Your task to perform on an android device: turn off sleep mode Image 0: 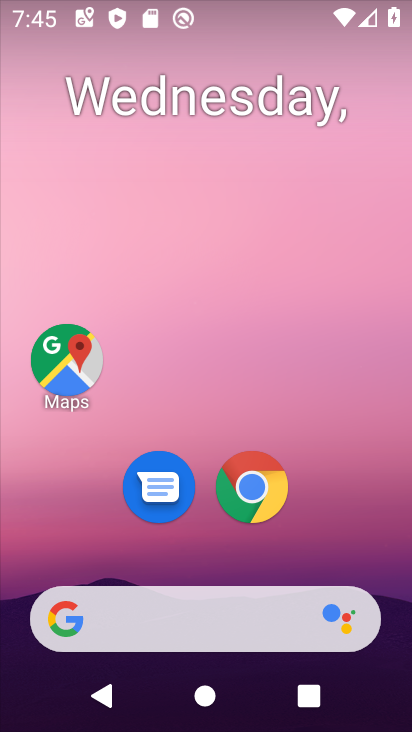
Step 0: drag from (389, 558) to (366, 175)
Your task to perform on an android device: turn off sleep mode Image 1: 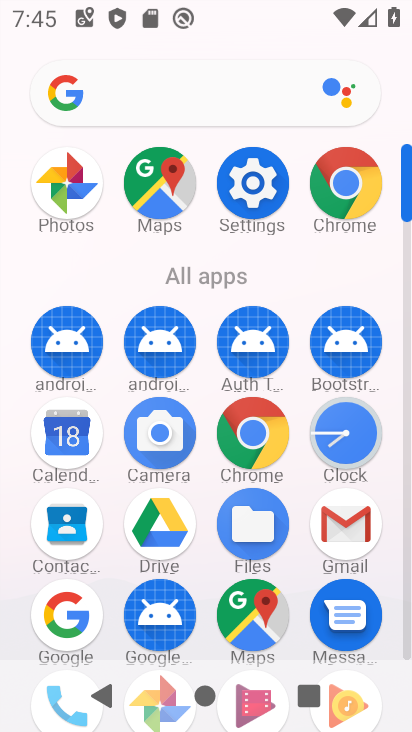
Step 1: click (252, 211)
Your task to perform on an android device: turn off sleep mode Image 2: 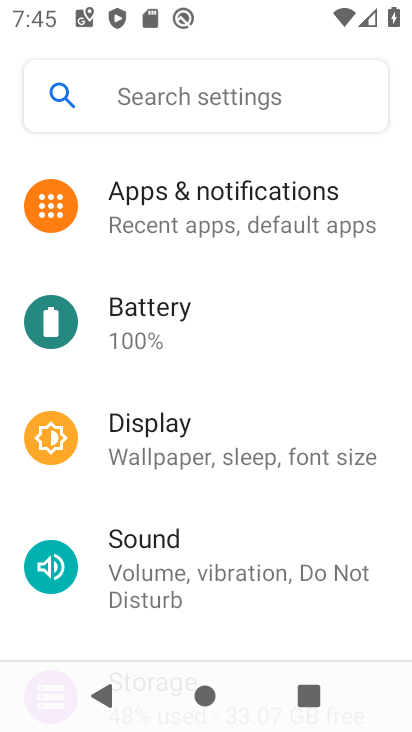
Step 2: drag from (374, 353) to (366, 457)
Your task to perform on an android device: turn off sleep mode Image 3: 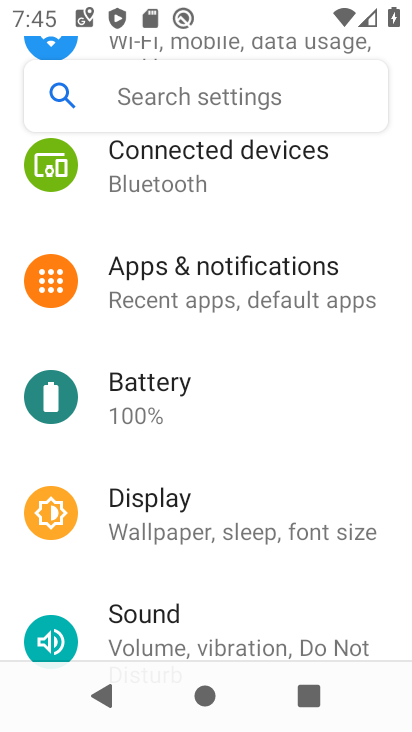
Step 3: drag from (368, 343) to (365, 437)
Your task to perform on an android device: turn off sleep mode Image 4: 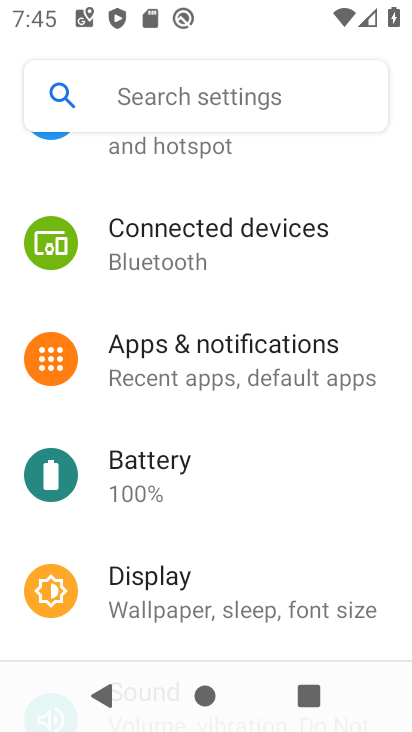
Step 4: drag from (363, 300) to (372, 426)
Your task to perform on an android device: turn off sleep mode Image 5: 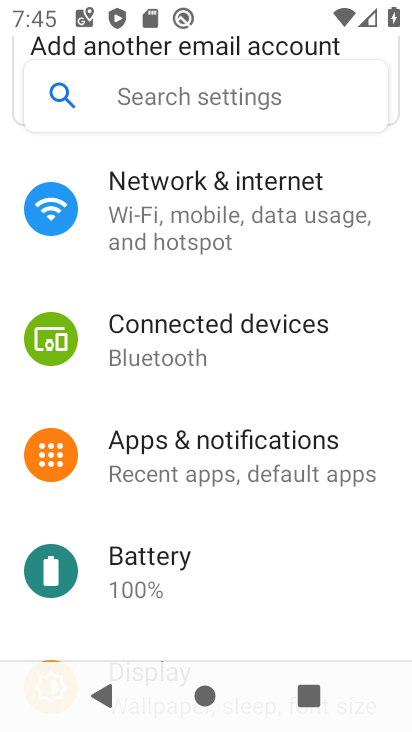
Step 5: drag from (366, 310) to (377, 434)
Your task to perform on an android device: turn off sleep mode Image 6: 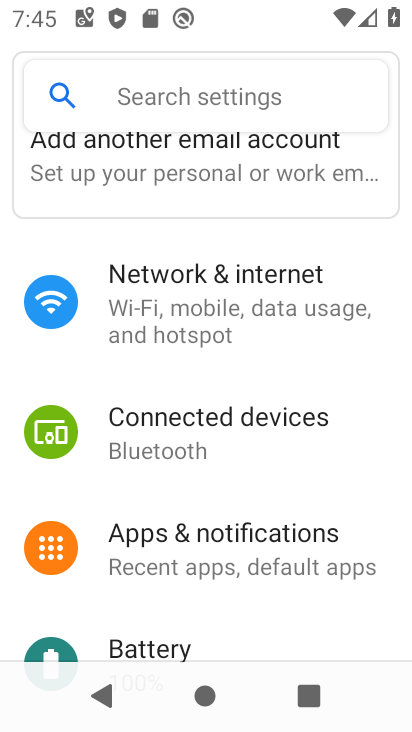
Step 6: drag from (383, 278) to (382, 435)
Your task to perform on an android device: turn off sleep mode Image 7: 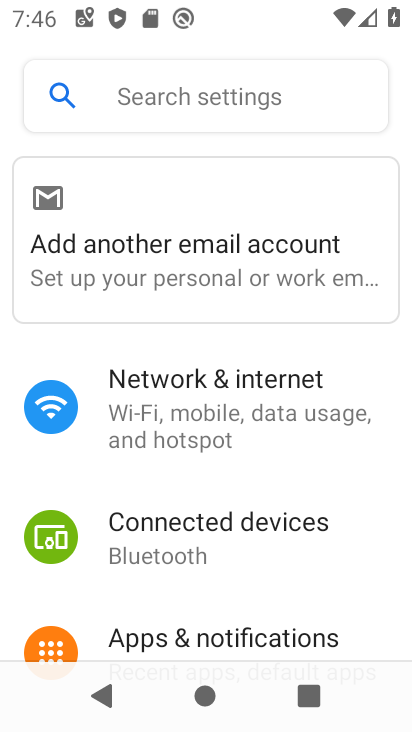
Step 7: drag from (360, 535) to (368, 394)
Your task to perform on an android device: turn off sleep mode Image 8: 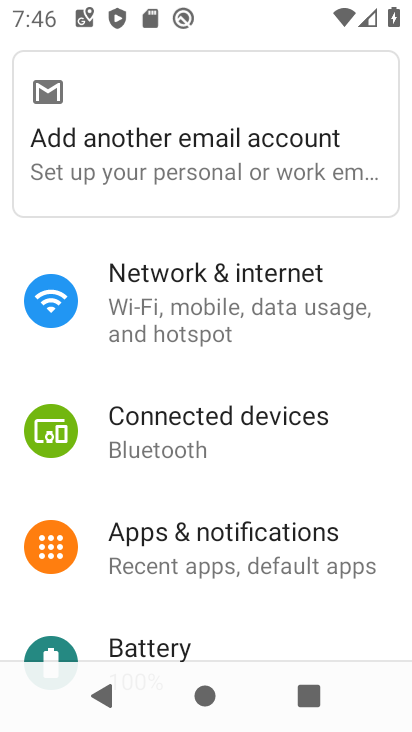
Step 8: drag from (363, 484) to (356, 357)
Your task to perform on an android device: turn off sleep mode Image 9: 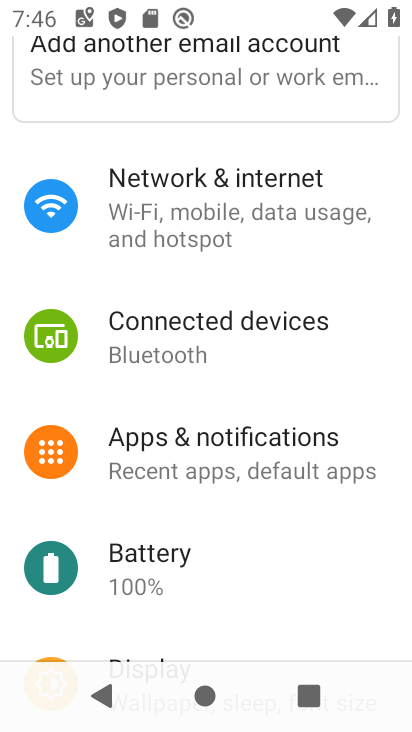
Step 9: drag from (336, 507) to (337, 405)
Your task to perform on an android device: turn off sleep mode Image 10: 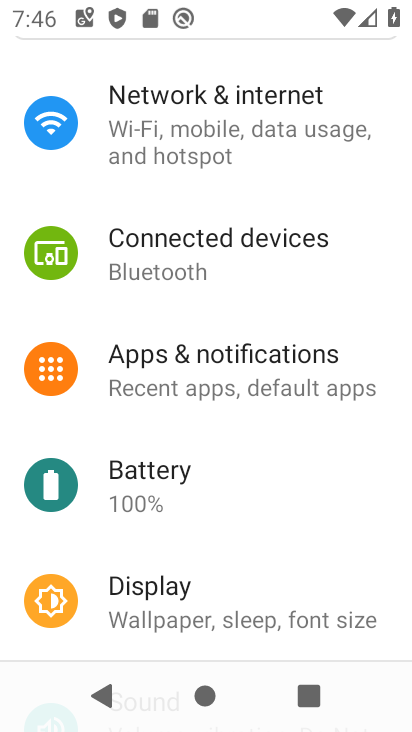
Step 10: drag from (327, 520) to (336, 422)
Your task to perform on an android device: turn off sleep mode Image 11: 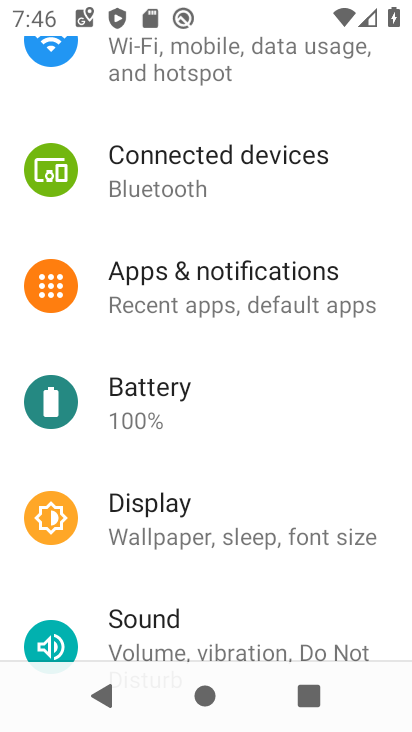
Step 11: drag from (324, 521) to (333, 422)
Your task to perform on an android device: turn off sleep mode Image 12: 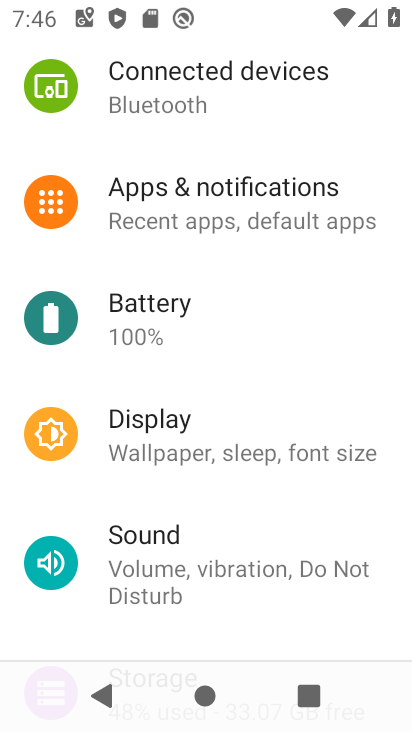
Step 12: drag from (337, 523) to (343, 428)
Your task to perform on an android device: turn off sleep mode Image 13: 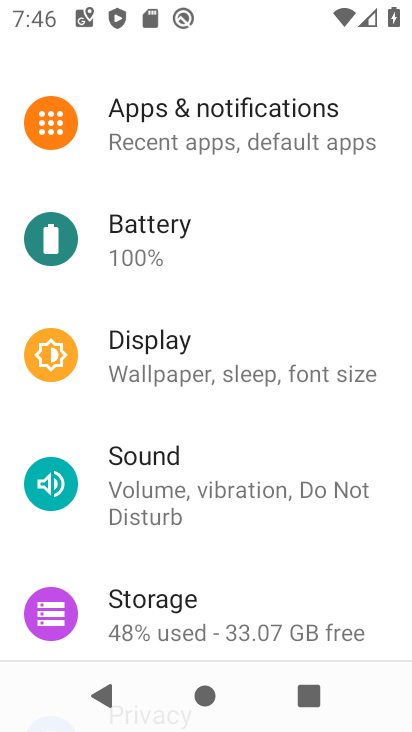
Step 13: drag from (356, 565) to (365, 449)
Your task to perform on an android device: turn off sleep mode Image 14: 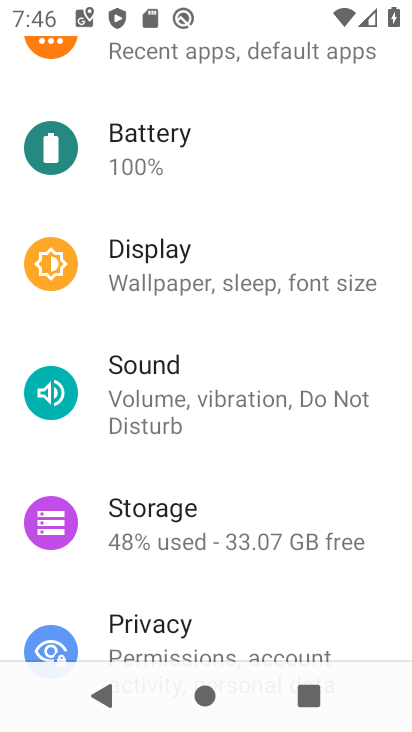
Step 14: drag from (349, 589) to (362, 471)
Your task to perform on an android device: turn off sleep mode Image 15: 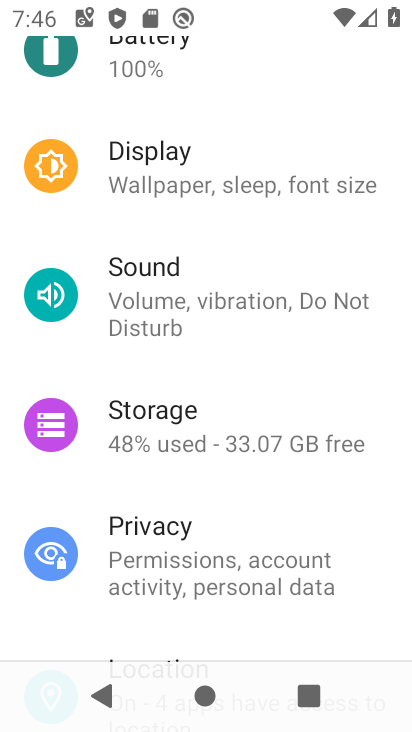
Step 15: drag from (369, 600) to (365, 487)
Your task to perform on an android device: turn off sleep mode Image 16: 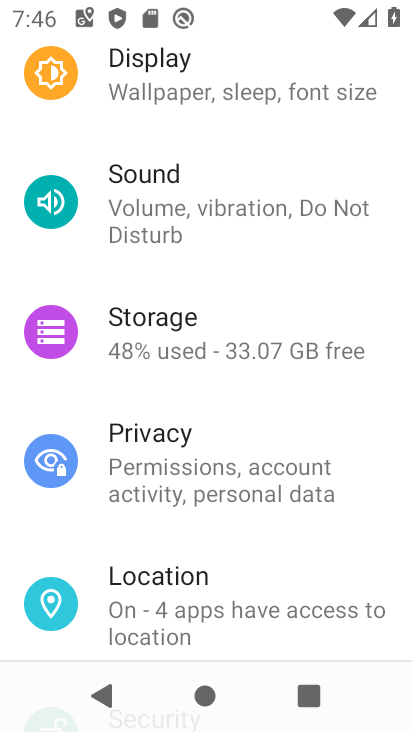
Step 16: drag from (368, 591) to (372, 452)
Your task to perform on an android device: turn off sleep mode Image 17: 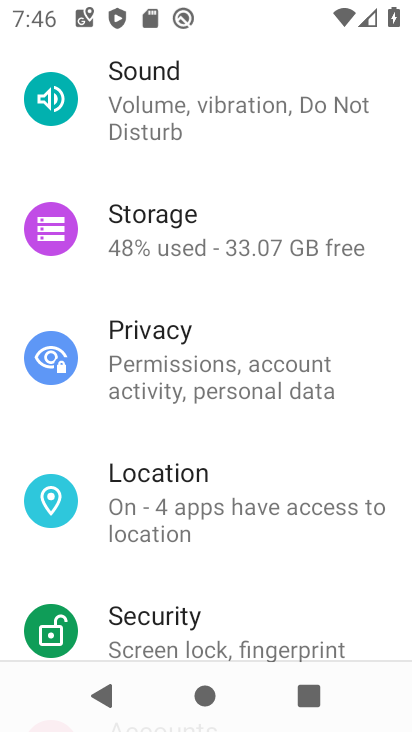
Step 17: drag from (365, 589) to (377, 478)
Your task to perform on an android device: turn off sleep mode Image 18: 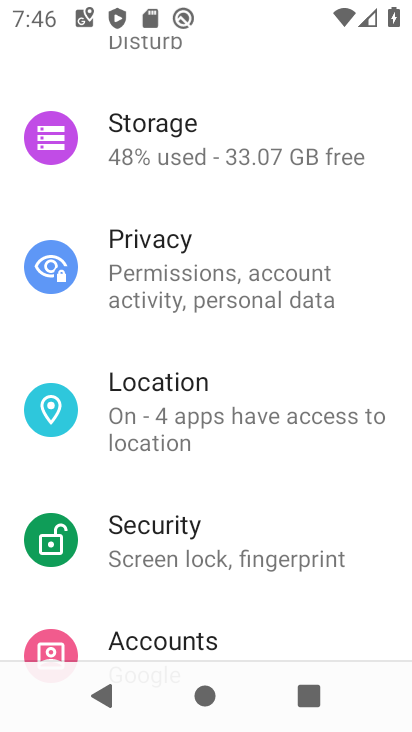
Step 18: drag from (370, 603) to (375, 510)
Your task to perform on an android device: turn off sleep mode Image 19: 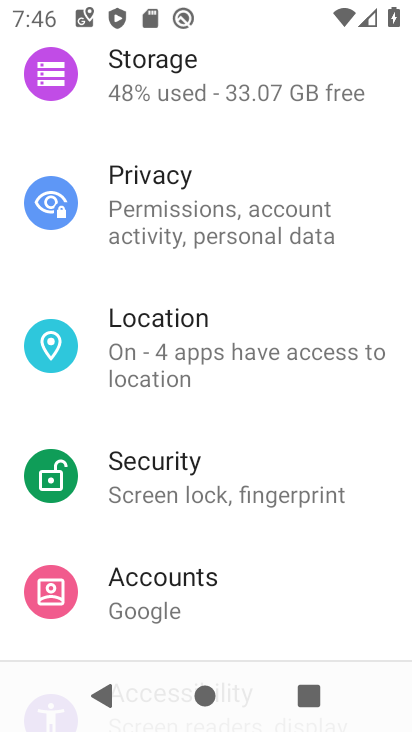
Step 19: drag from (361, 619) to (364, 515)
Your task to perform on an android device: turn off sleep mode Image 20: 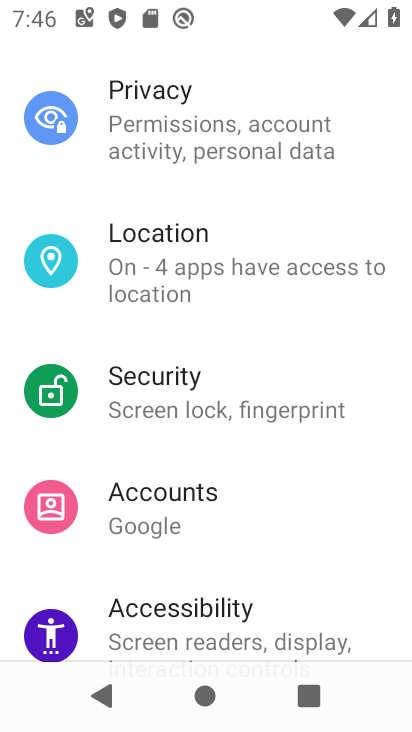
Step 20: drag from (353, 582) to (369, 510)
Your task to perform on an android device: turn off sleep mode Image 21: 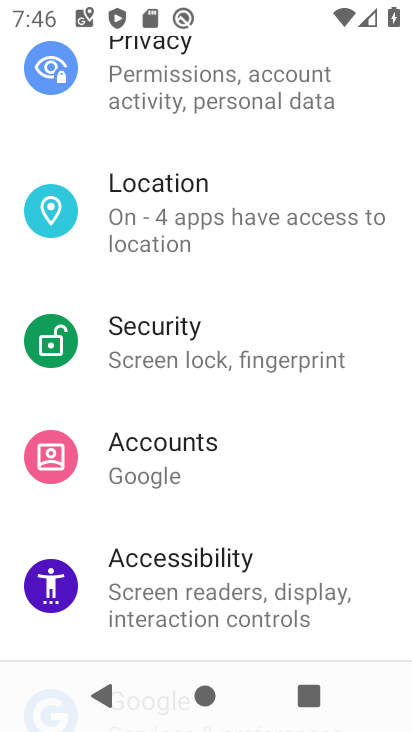
Step 21: drag from (371, 453) to (359, 547)
Your task to perform on an android device: turn off sleep mode Image 22: 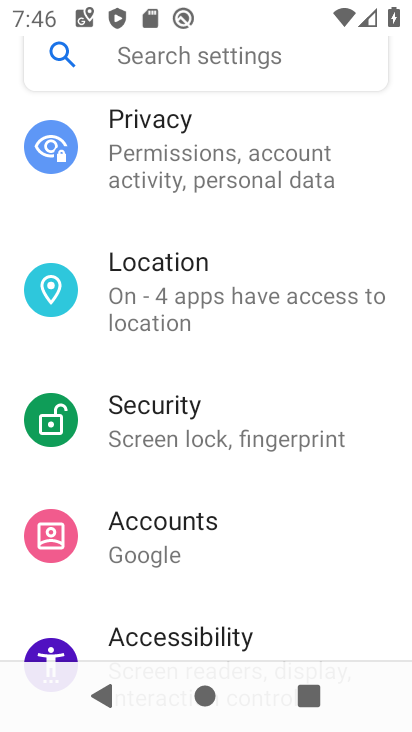
Step 22: drag from (350, 466) to (358, 534)
Your task to perform on an android device: turn off sleep mode Image 23: 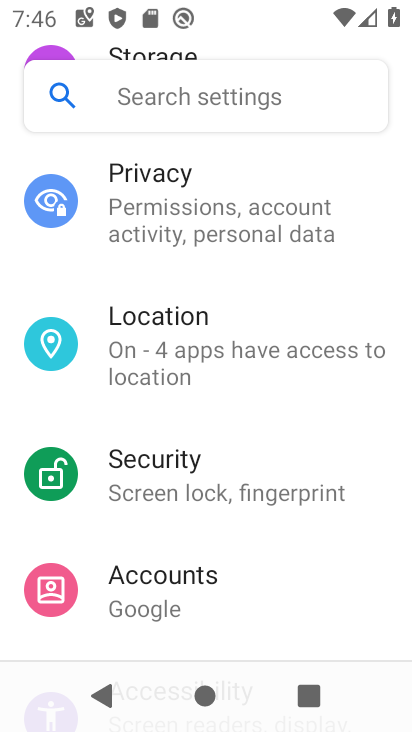
Step 23: drag from (366, 489) to (373, 572)
Your task to perform on an android device: turn off sleep mode Image 24: 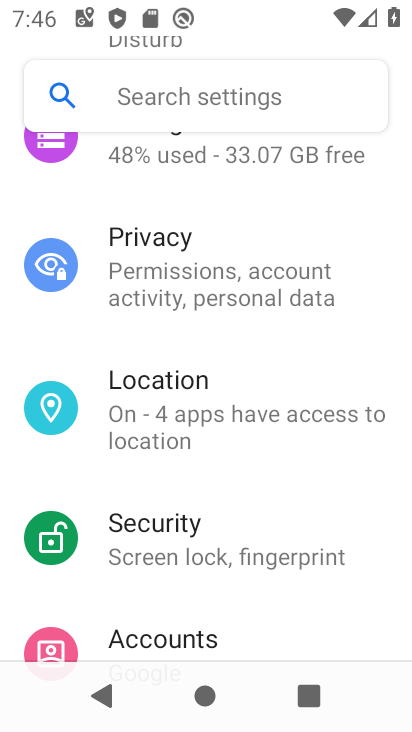
Step 24: drag from (379, 465) to (384, 532)
Your task to perform on an android device: turn off sleep mode Image 25: 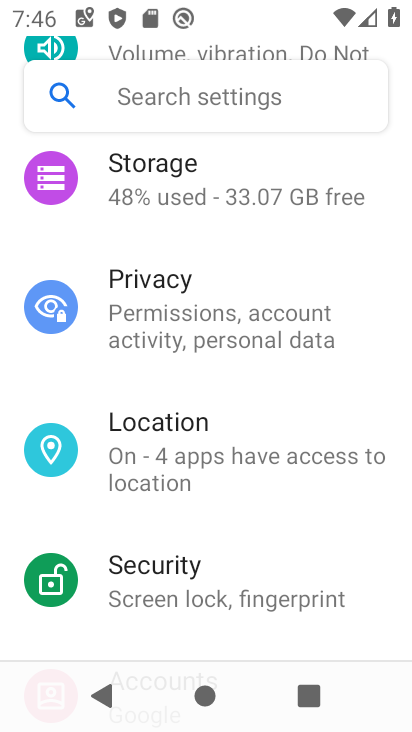
Step 25: drag from (369, 428) to (375, 524)
Your task to perform on an android device: turn off sleep mode Image 26: 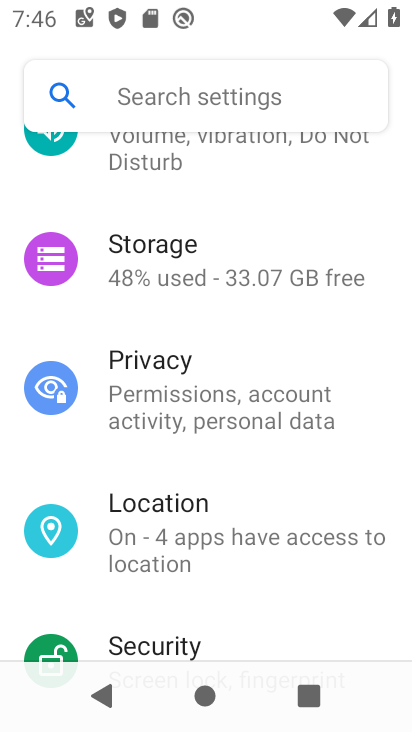
Step 26: drag from (383, 432) to (388, 501)
Your task to perform on an android device: turn off sleep mode Image 27: 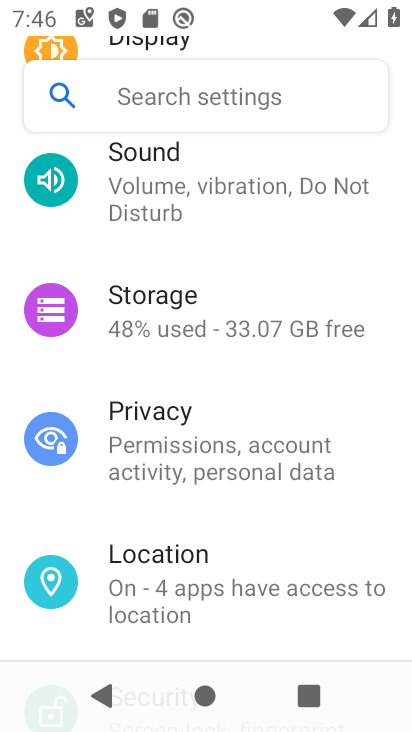
Step 27: drag from (375, 418) to (372, 496)
Your task to perform on an android device: turn off sleep mode Image 28: 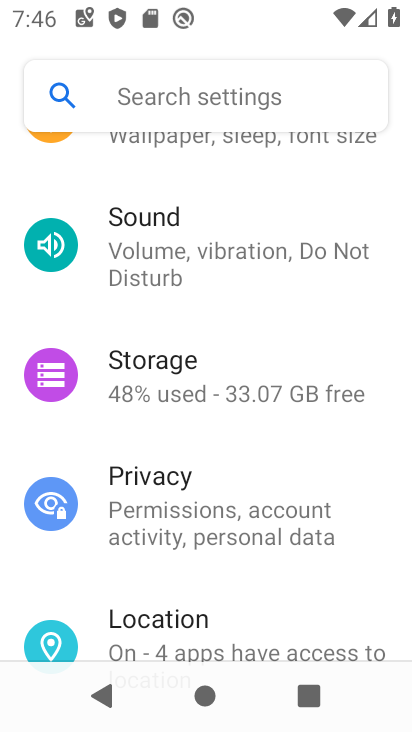
Step 28: drag from (367, 426) to (367, 493)
Your task to perform on an android device: turn off sleep mode Image 29: 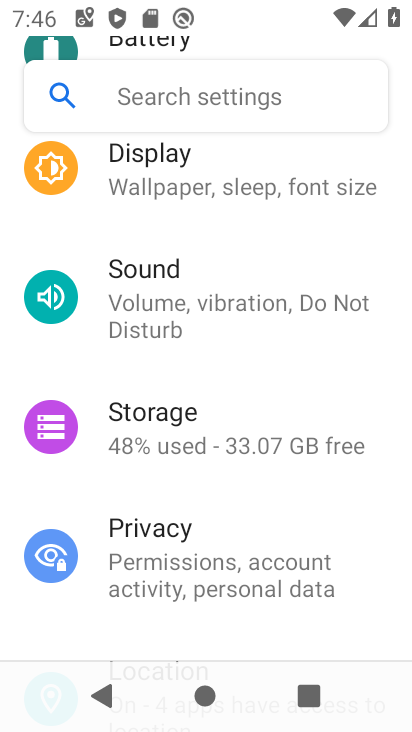
Step 29: drag from (373, 418) to (366, 492)
Your task to perform on an android device: turn off sleep mode Image 30: 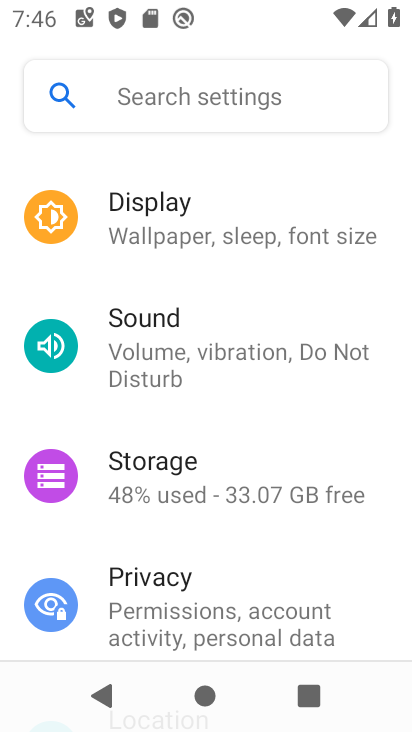
Step 30: drag from (375, 381) to (365, 475)
Your task to perform on an android device: turn off sleep mode Image 31: 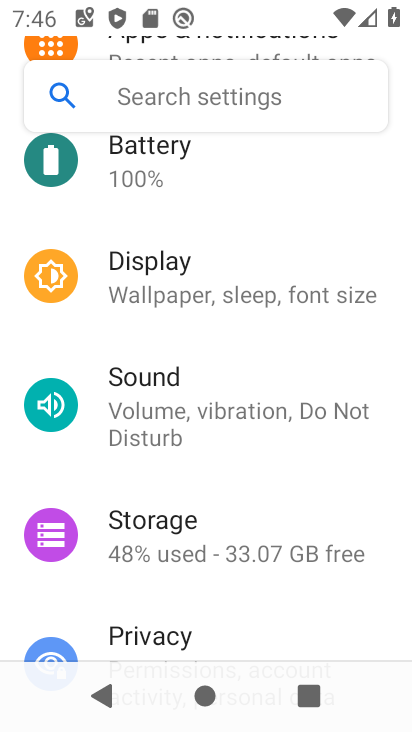
Step 31: drag from (362, 368) to (367, 507)
Your task to perform on an android device: turn off sleep mode Image 32: 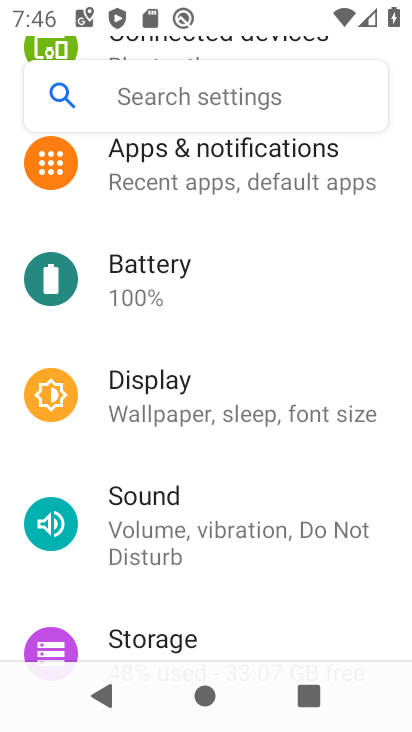
Step 32: click (340, 417)
Your task to perform on an android device: turn off sleep mode Image 33: 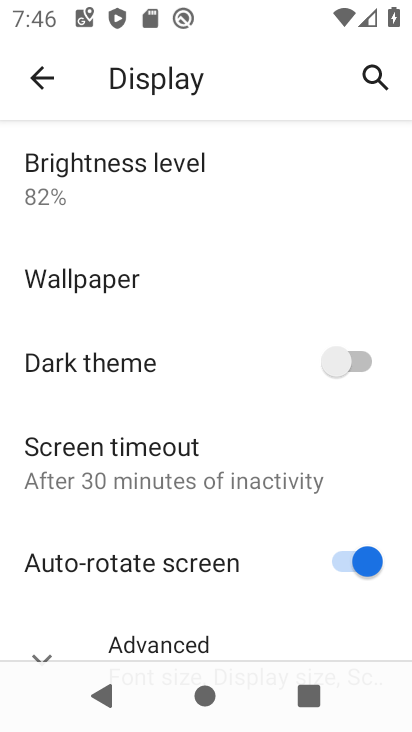
Step 33: task complete